Your task to perform on an android device: Clear all items from cart on target. Image 0: 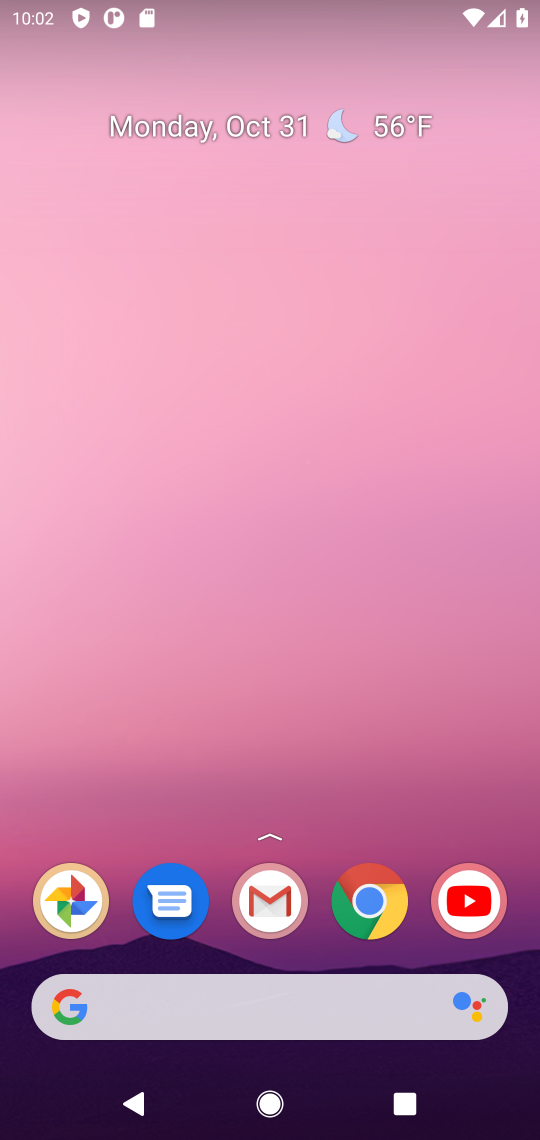
Step 0: drag from (196, 957) to (185, 467)
Your task to perform on an android device: Clear all items from cart on target. Image 1: 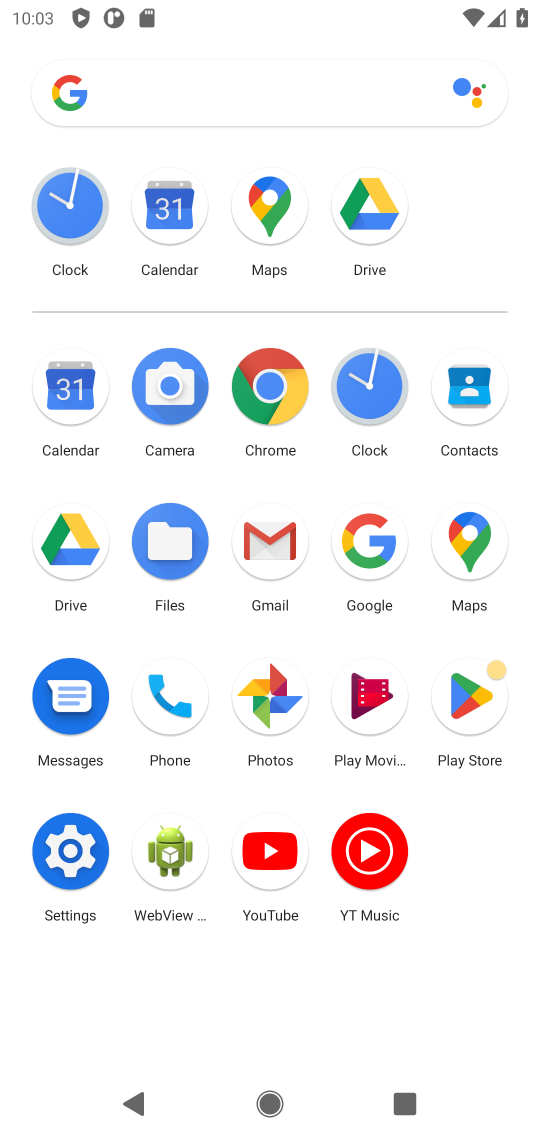
Step 1: click (352, 544)
Your task to perform on an android device: Clear all items from cart on target. Image 2: 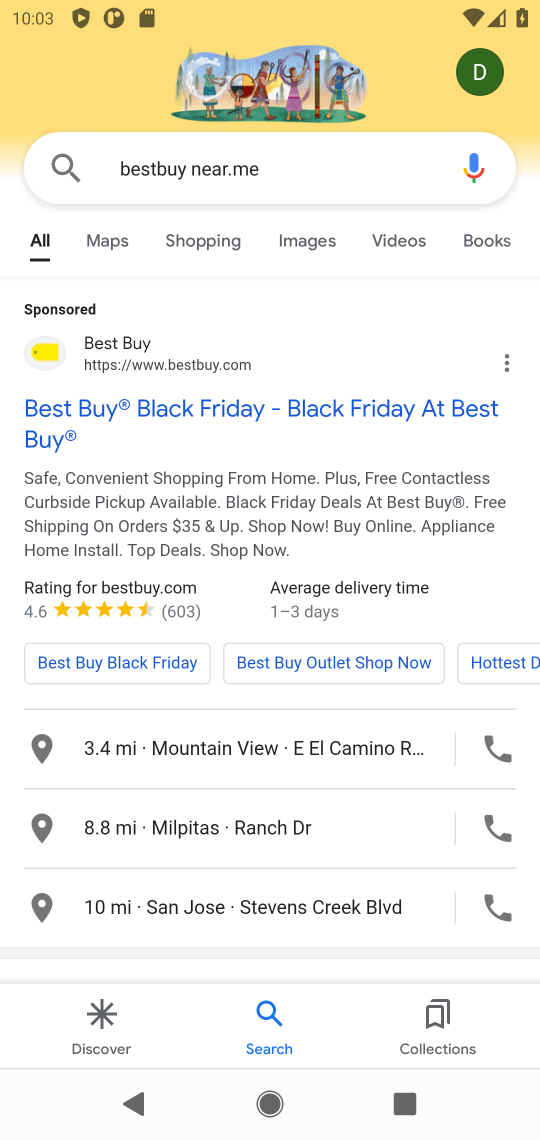
Step 2: click (38, 339)
Your task to perform on an android device: Clear all items from cart on target. Image 3: 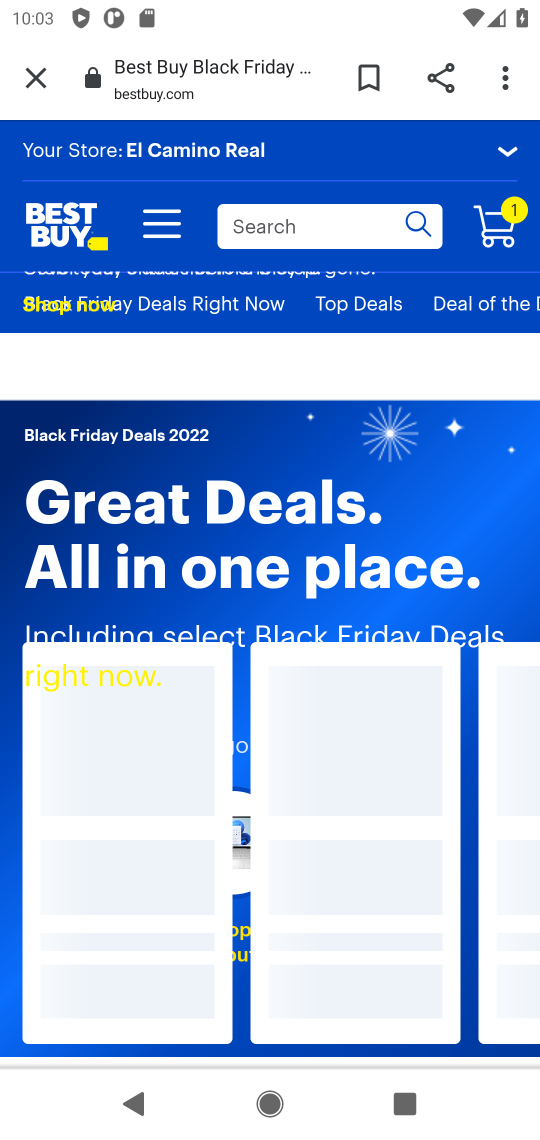
Step 3: click (500, 238)
Your task to perform on an android device: Clear all items from cart on target. Image 4: 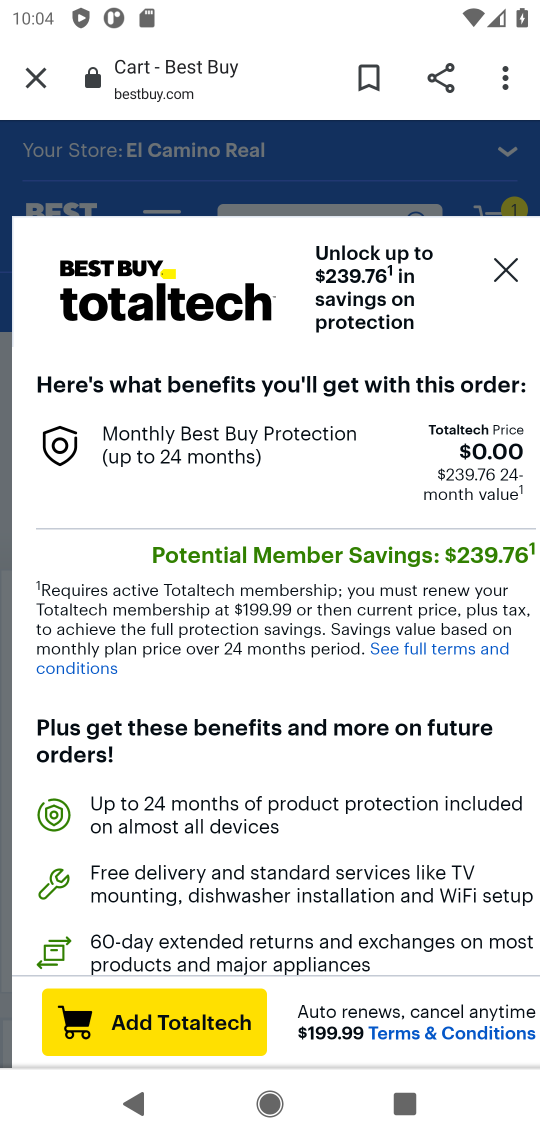
Step 4: click (508, 262)
Your task to perform on an android device: Clear all items from cart on target. Image 5: 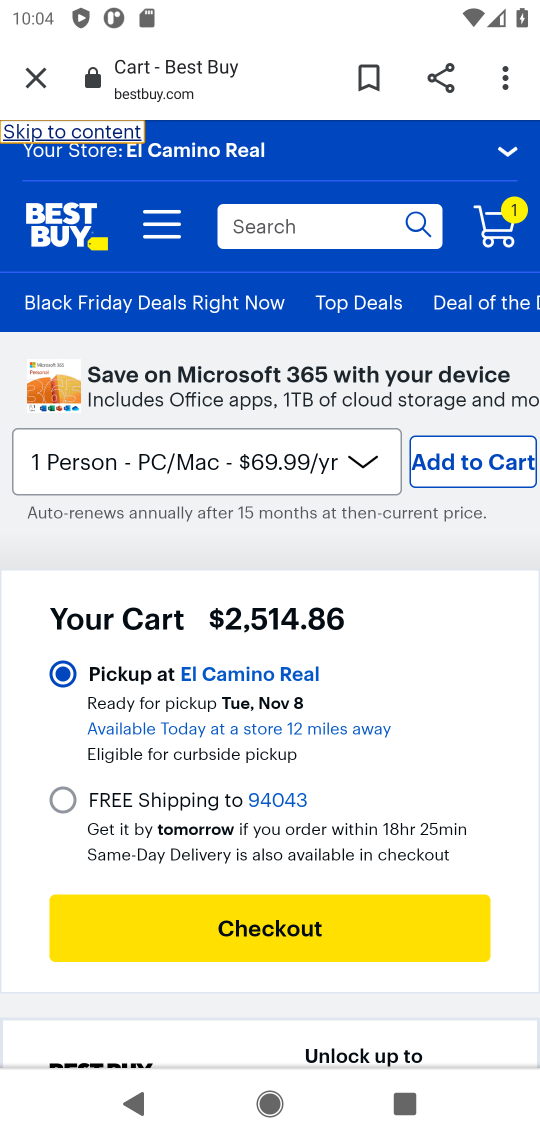
Step 5: click (496, 208)
Your task to perform on an android device: Clear all items from cart on target. Image 6: 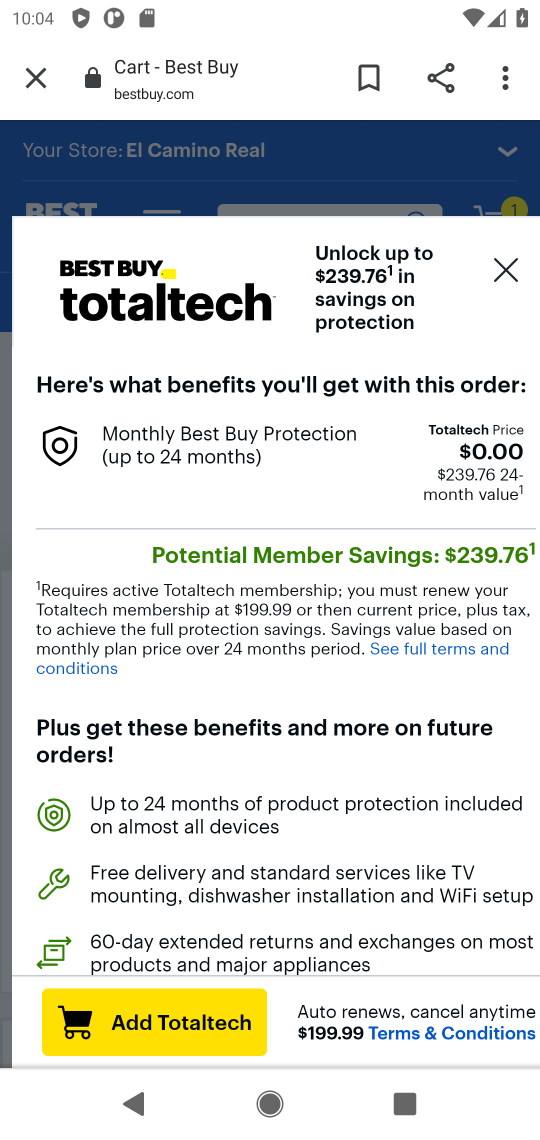
Step 6: drag from (320, 785) to (370, 296)
Your task to perform on an android device: Clear all items from cart on target. Image 7: 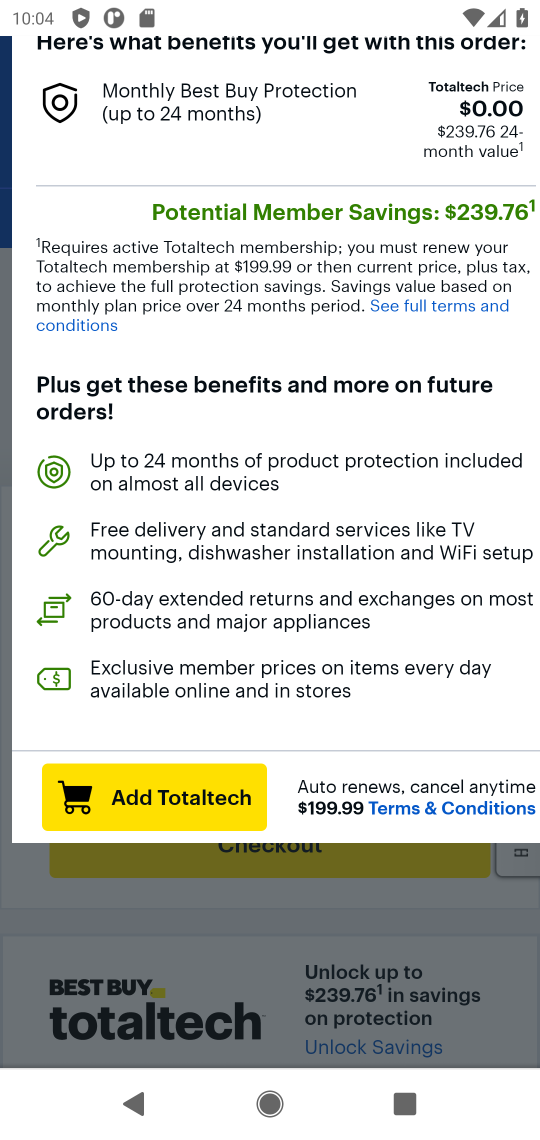
Step 7: drag from (360, 317) to (315, 1128)
Your task to perform on an android device: Clear all items from cart on target. Image 8: 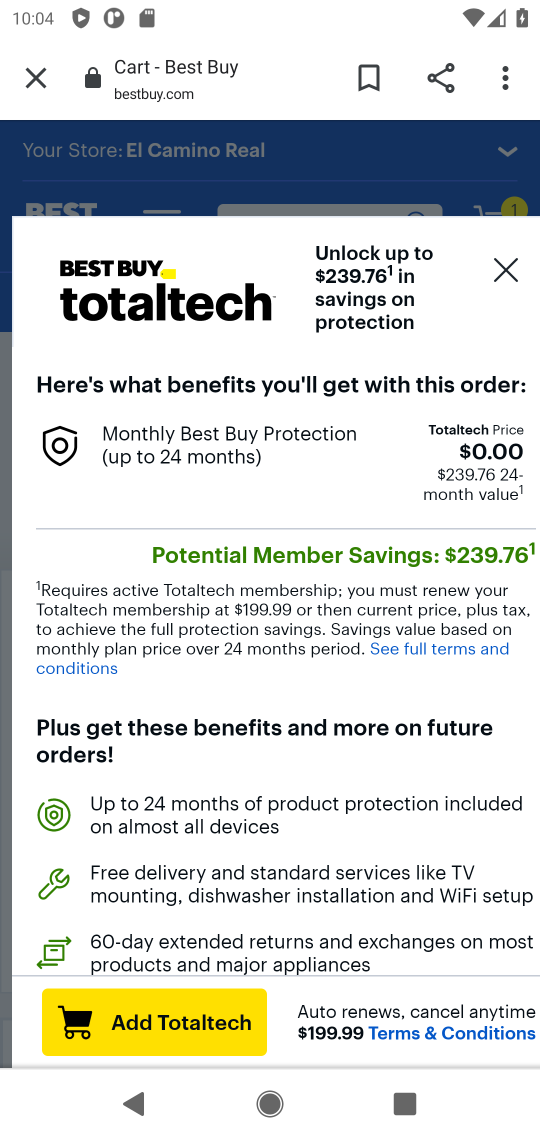
Step 8: drag from (475, 577) to (36, 550)
Your task to perform on an android device: Clear all items from cart on target. Image 9: 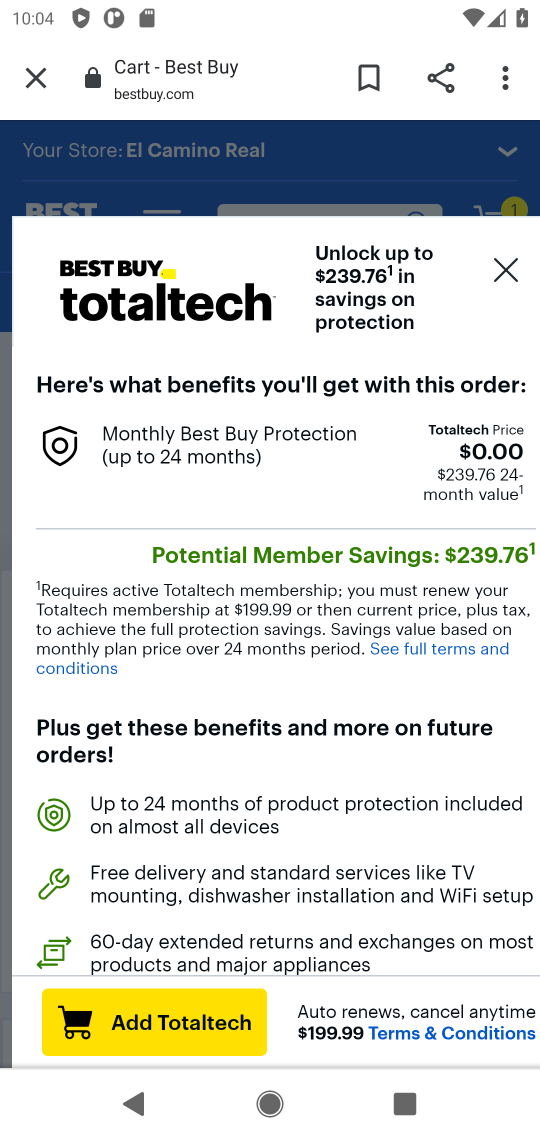
Step 9: drag from (338, 342) to (301, 872)
Your task to perform on an android device: Clear all items from cart on target. Image 10: 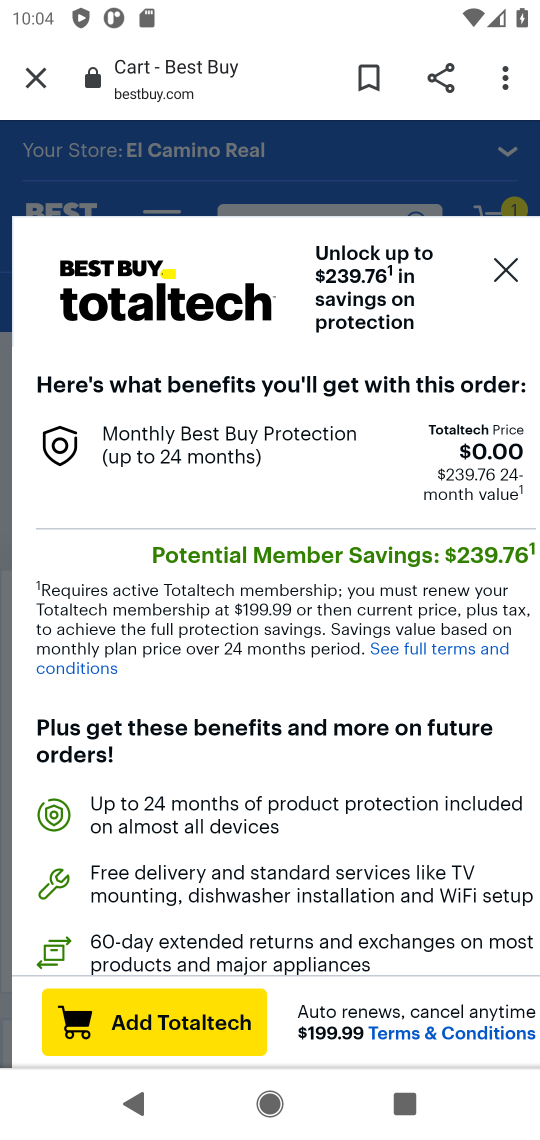
Step 10: click (482, 251)
Your task to perform on an android device: Clear all items from cart on target. Image 11: 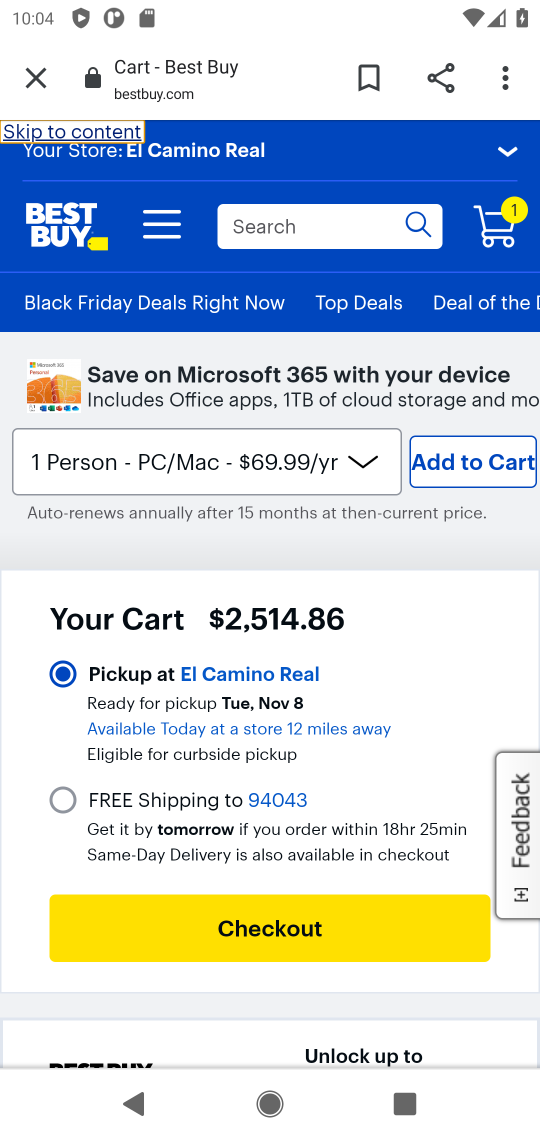
Step 11: task complete